Your task to perform on an android device: check storage Image 0: 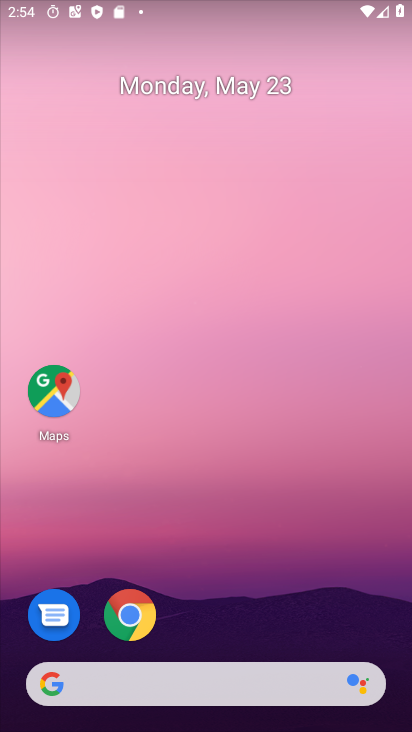
Step 0: drag from (262, 651) to (367, 16)
Your task to perform on an android device: check storage Image 1: 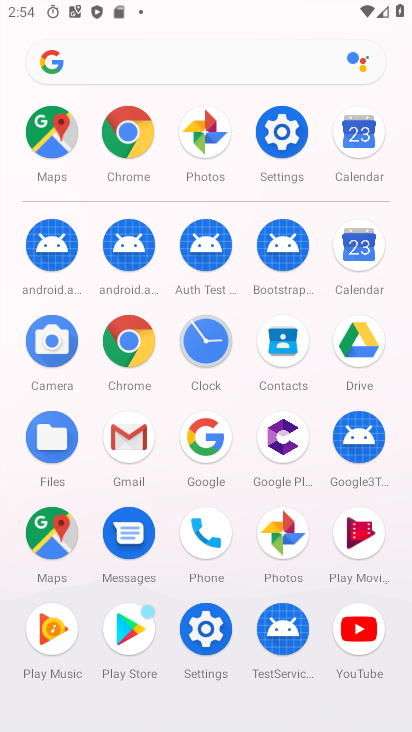
Step 1: click (281, 133)
Your task to perform on an android device: check storage Image 2: 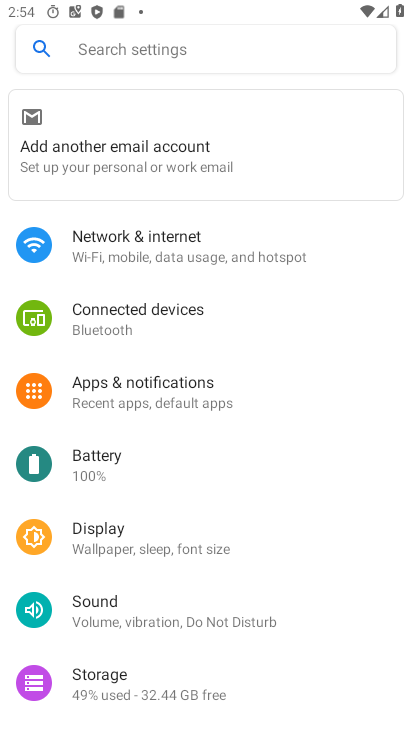
Step 2: click (89, 681)
Your task to perform on an android device: check storage Image 3: 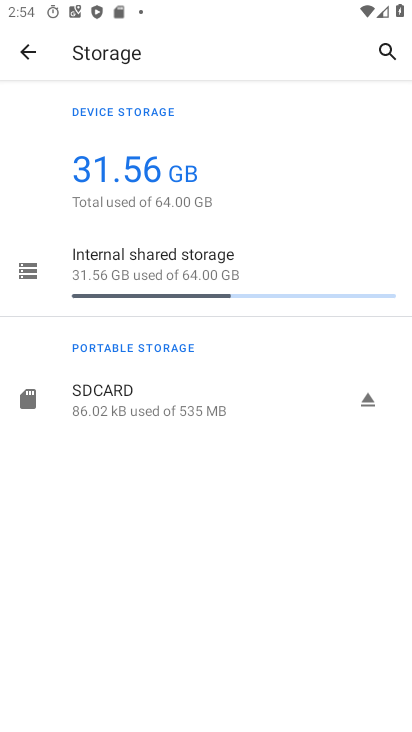
Step 3: click (131, 259)
Your task to perform on an android device: check storage Image 4: 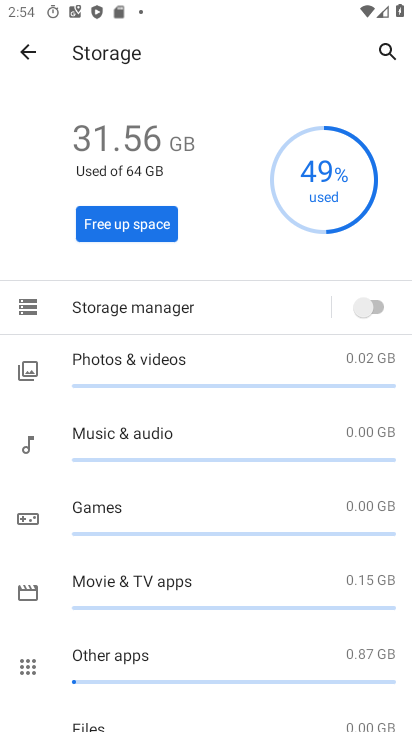
Step 4: task complete